Your task to perform on an android device: change the upload size in google photos Image 0: 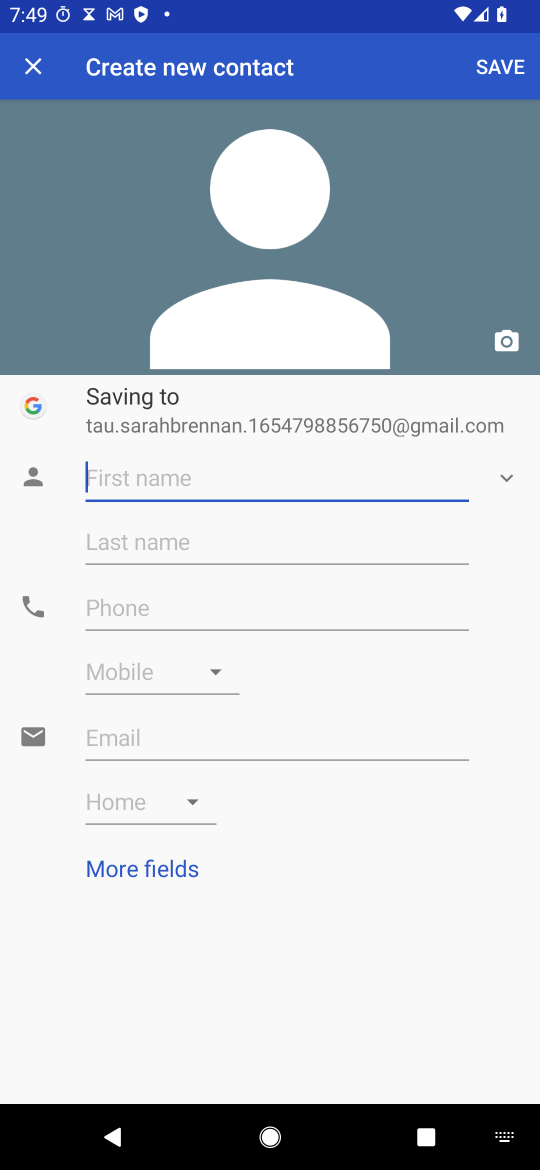
Step 0: type "mmbbb"
Your task to perform on an android device: change the upload size in google photos Image 1: 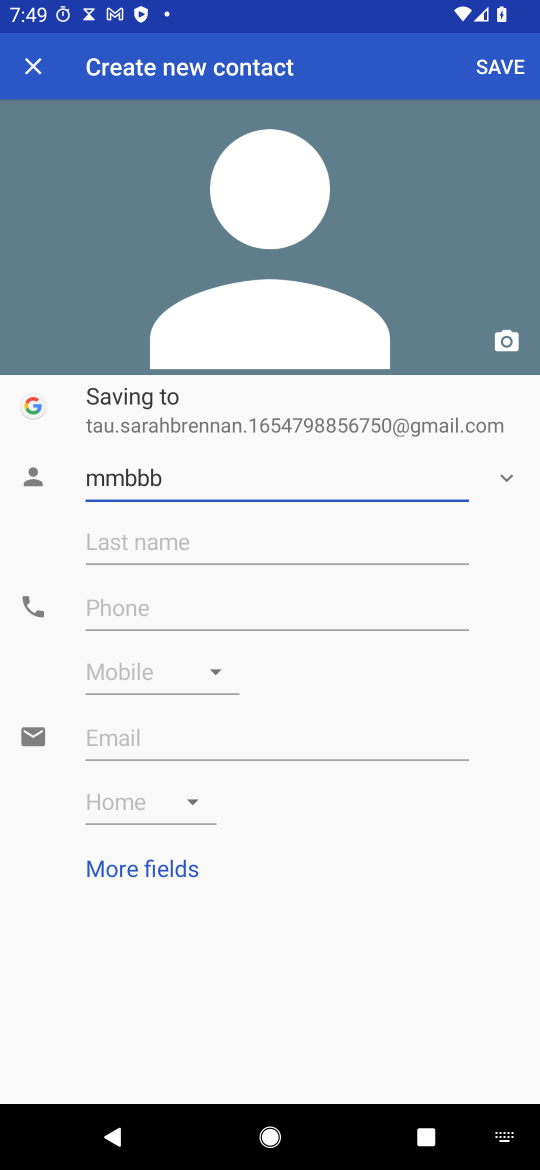
Step 1: click (152, 600)
Your task to perform on an android device: change the upload size in google photos Image 2: 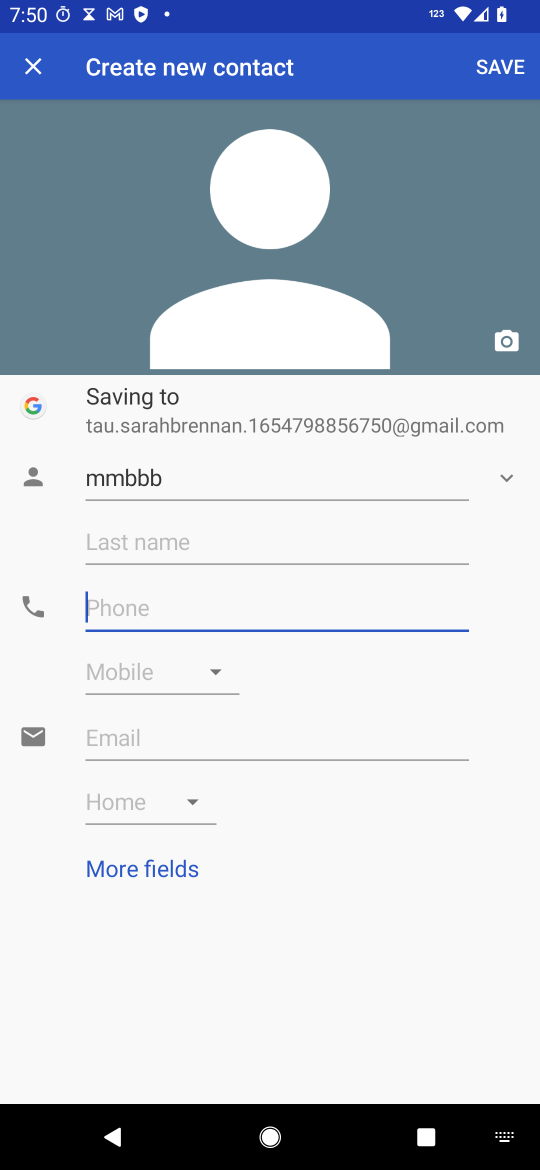
Step 2: type "9878"
Your task to perform on an android device: change the upload size in google photos Image 3: 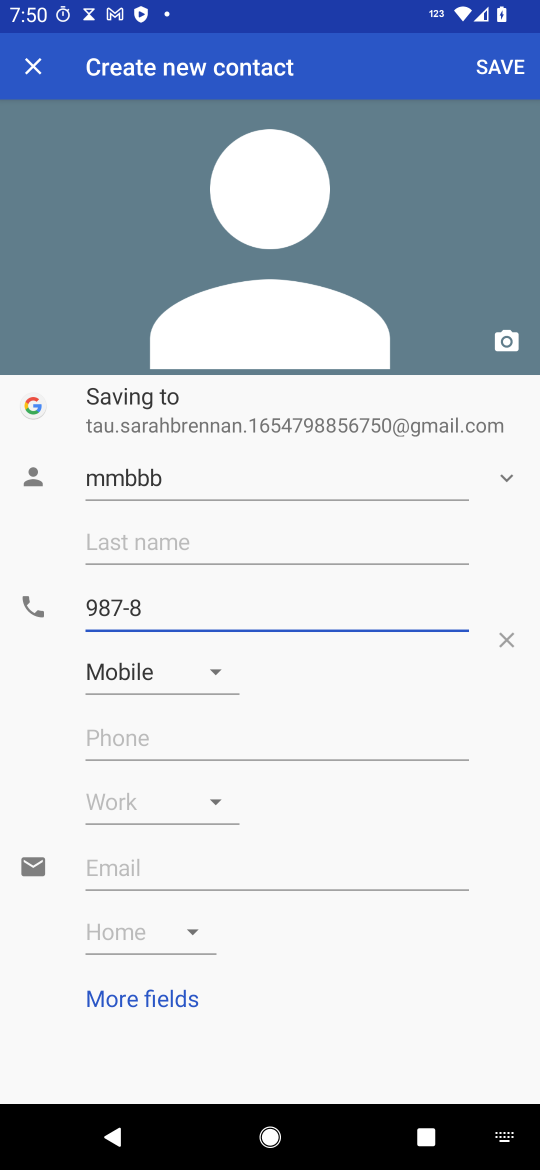
Step 3: task complete